Your task to perform on an android device: Clear all items from cart on bestbuy. Image 0: 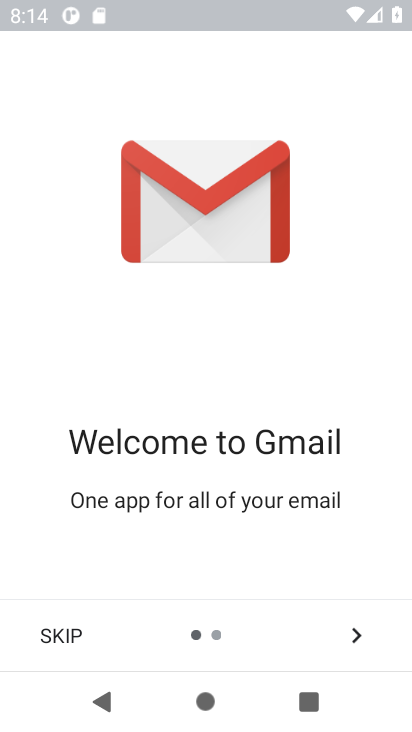
Step 0: press home button
Your task to perform on an android device: Clear all items from cart on bestbuy. Image 1: 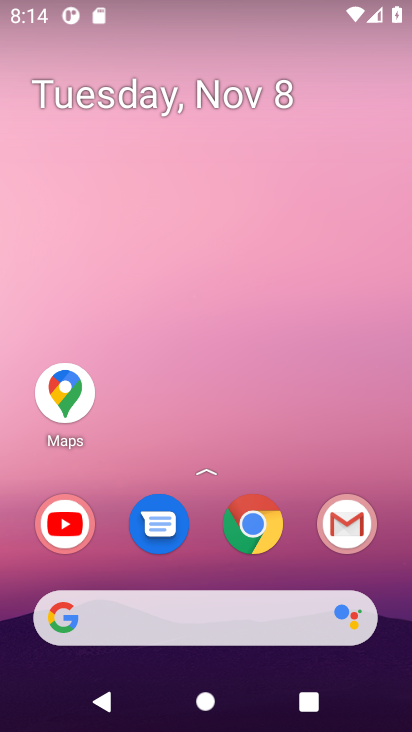
Step 1: click (251, 535)
Your task to perform on an android device: Clear all items from cart on bestbuy. Image 2: 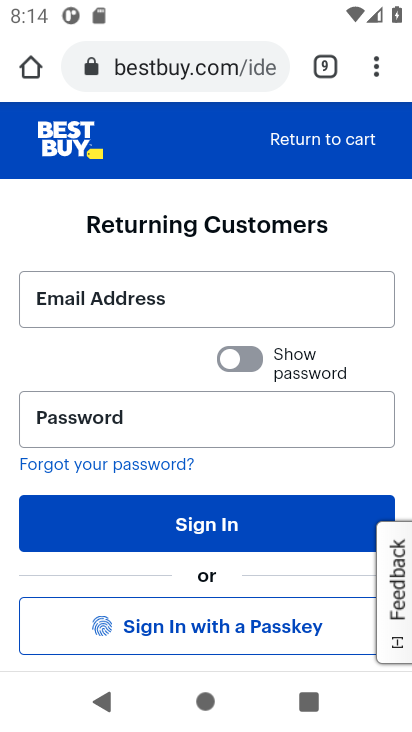
Step 2: click (319, 141)
Your task to perform on an android device: Clear all items from cart on bestbuy. Image 3: 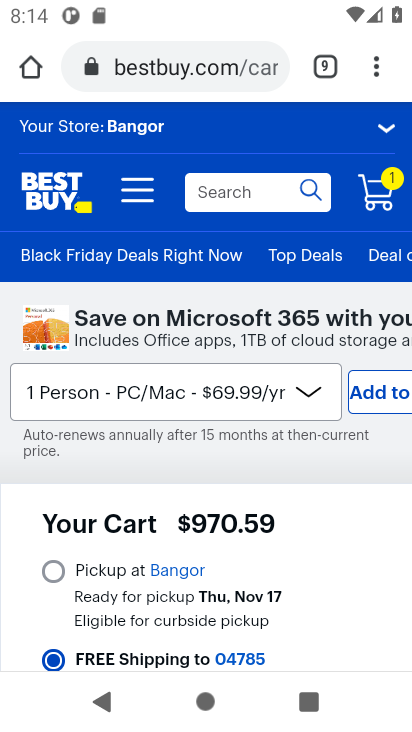
Step 3: drag from (190, 457) to (234, 208)
Your task to perform on an android device: Clear all items from cart on bestbuy. Image 4: 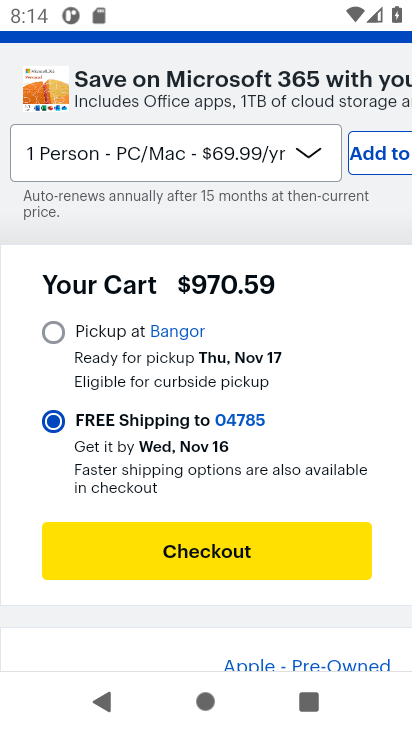
Step 4: drag from (167, 490) to (189, 224)
Your task to perform on an android device: Clear all items from cart on bestbuy. Image 5: 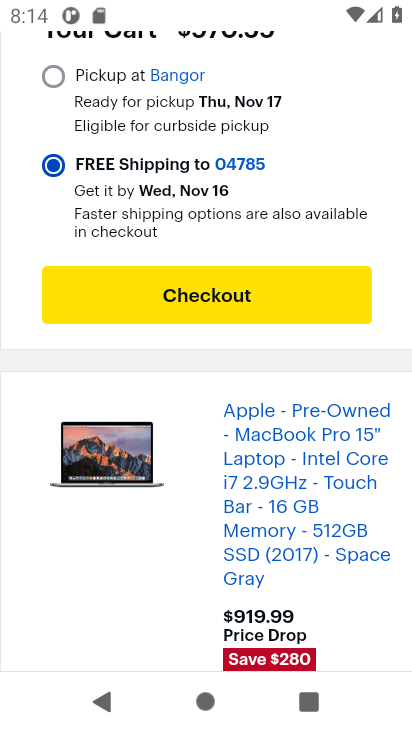
Step 5: drag from (188, 532) to (199, 307)
Your task to perform on an android device: Clear all items from cart on bestbuy. Image 6: 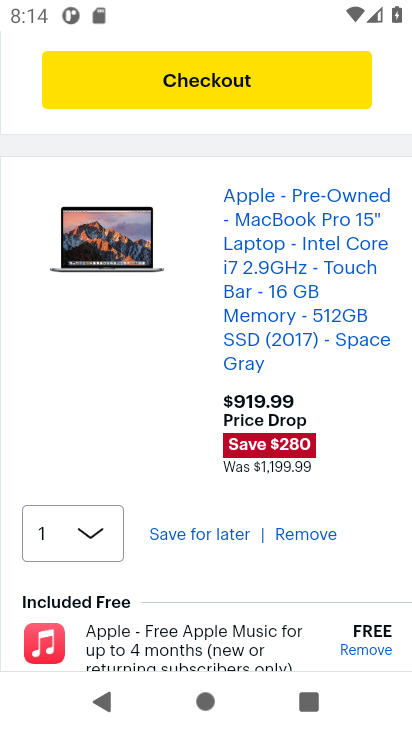
Step 6: click (290, 541)
Your task to perform on an android device: Clear all items from cart on bestbuy. Image 7: 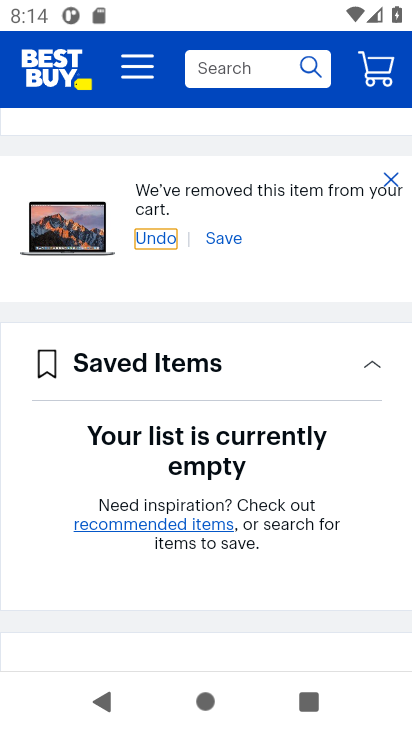
Step 7: task complete